Your task to perform on an android device: Open settings on Google Maps Image 0: 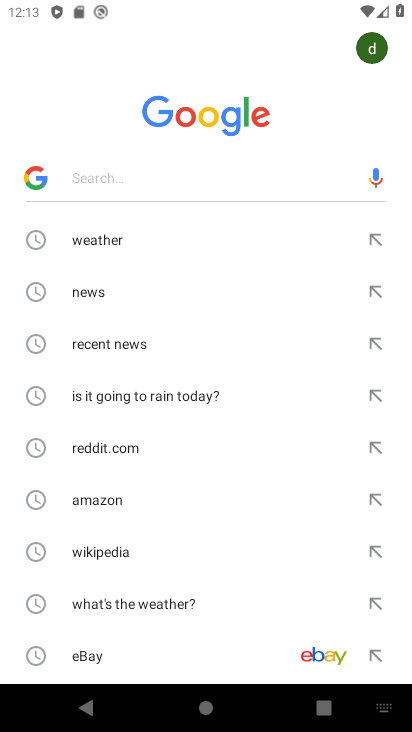
Step 0: press home button
Your task to perform on an android device: Open settings on Google Maps Image 1: 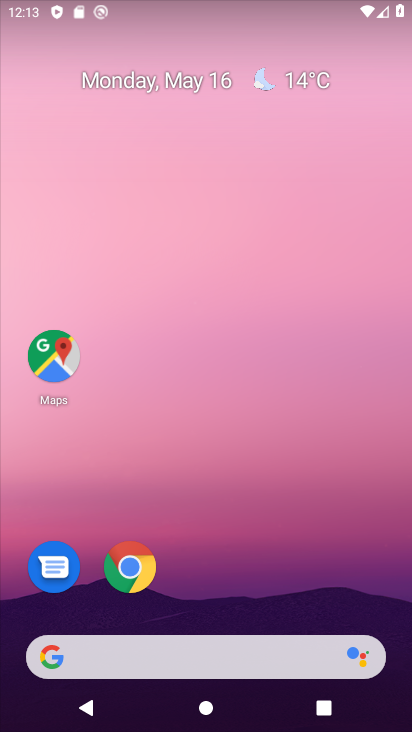
Step 1: click (49, 363)
Your task to perform on an android device: Open settings on Google Maps Image 2: 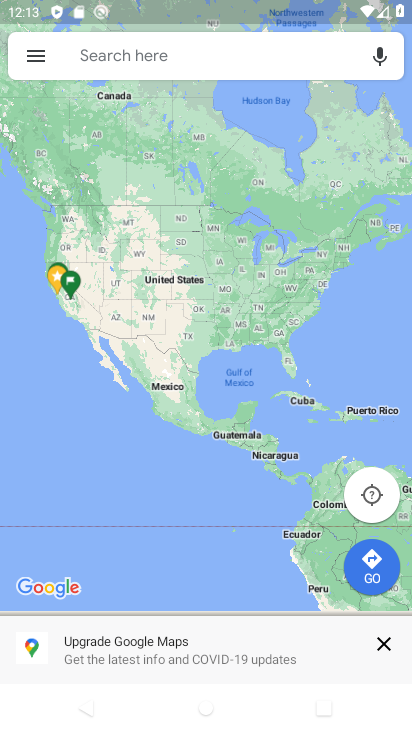
Step 2: click (33, 50)
Your task to perform on an android device: Open settings on Google Maps Image 3: 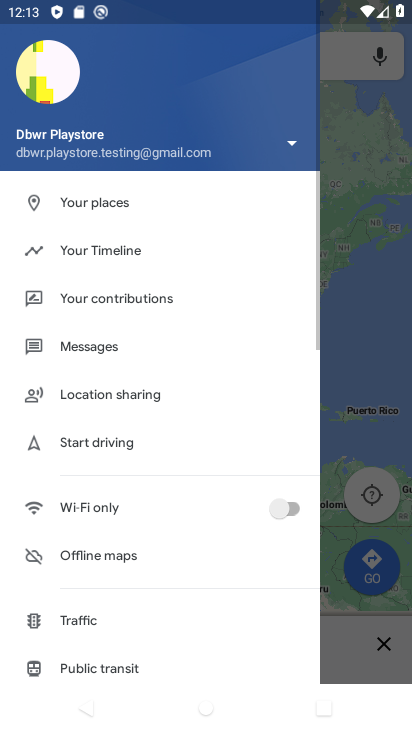
Step 3: drag from (194, 594) to (146, 265)
Your task to perform on an android device: Open settings on Google Maps Image 4: 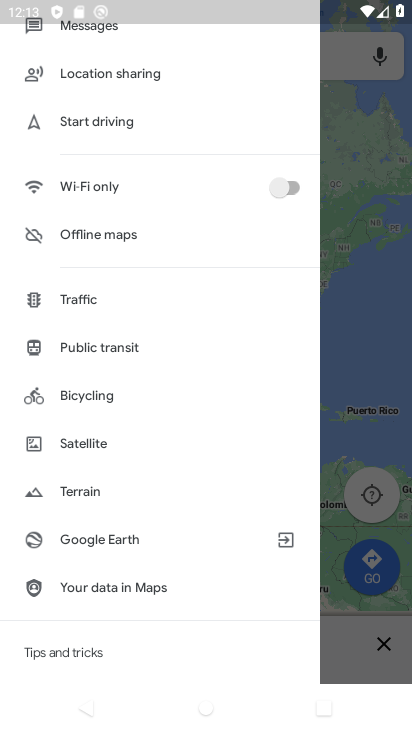
Step 4: drag from (144, 507) to (90, 257)
Your task to perform on an android device: Open settings on Google Maps Image 5: 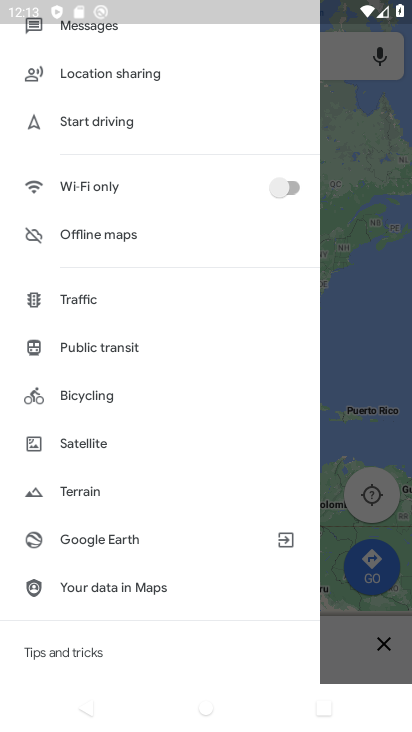
Step 5: drag from (188, 503) to (182, 206)
Your task to perform on an android device: Open settings on Google Maps Image 6: 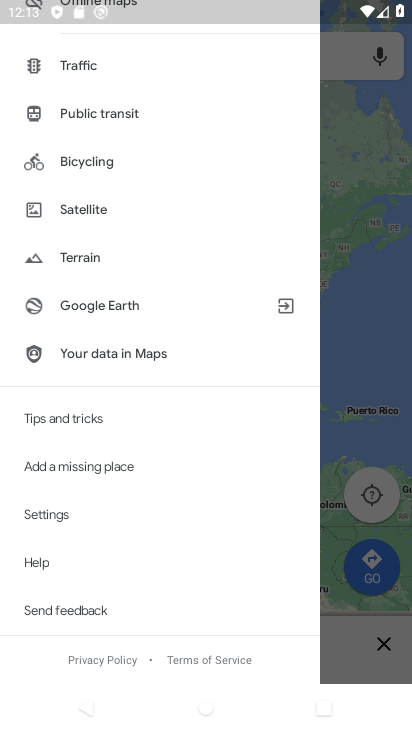
Step 6: click (41, 510)
Your task to perform on an android device: Open settings on Google Maps Image 7: 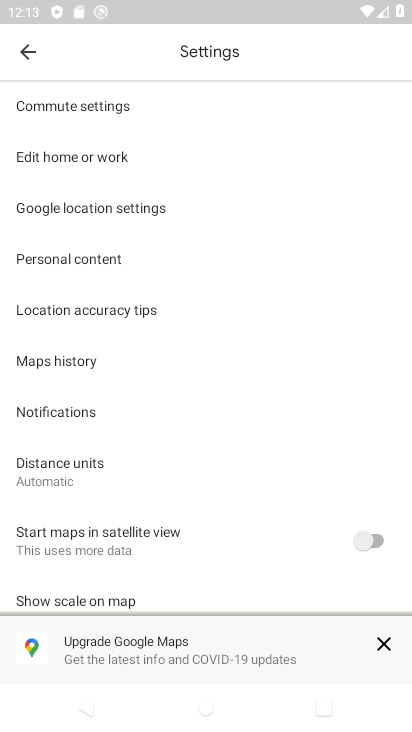
Step 7: task complete